Your task to perform on an android device: install app "Google Chrome" Image 0: 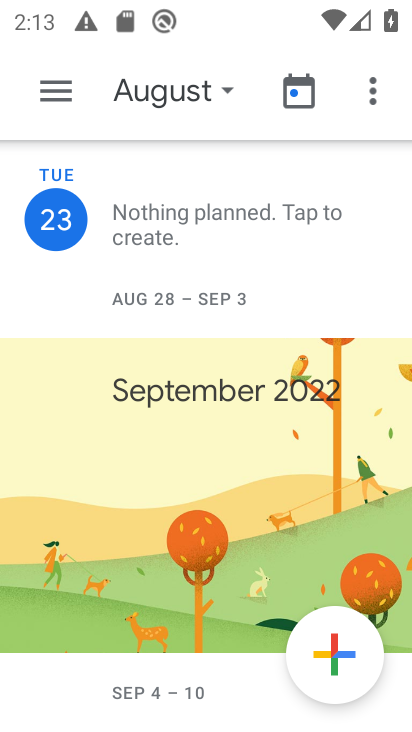
Step 0: press home button
Your task to perform on an android device: install app "Google Chrome" Image 1: 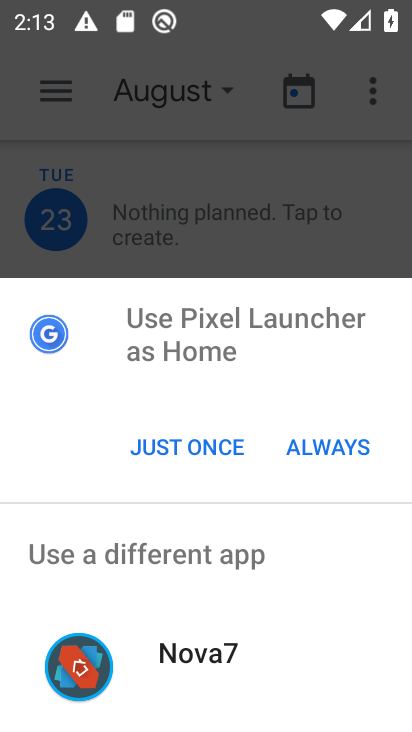
Step 1: click (168, 439)
Your task to perform on an android device: install app "Google Chrome" Image 2: 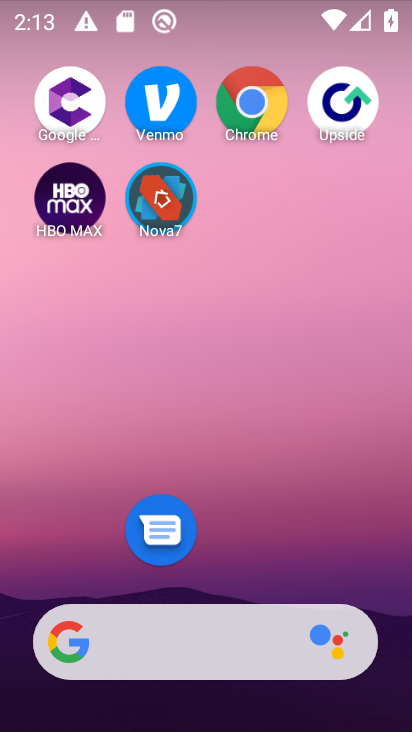
Step 2: drag from (262, 584) to (290, 0)
Your task to perform on an android device: install app "Google Chrome" Image 3: 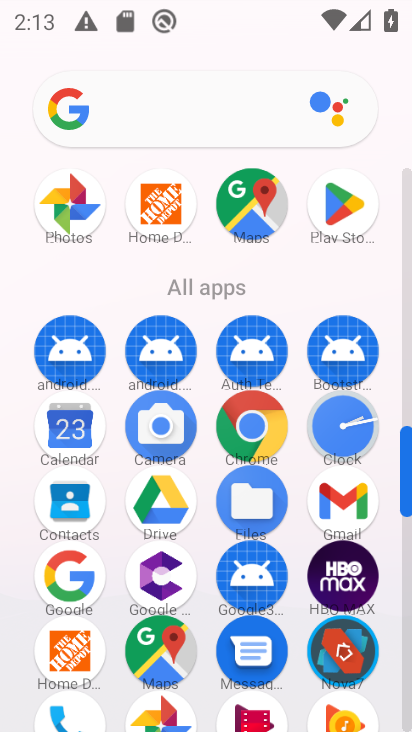
Step 3: click (336, 198)
Your task to perform on an android device: install app "Google Chrome" Image 4: 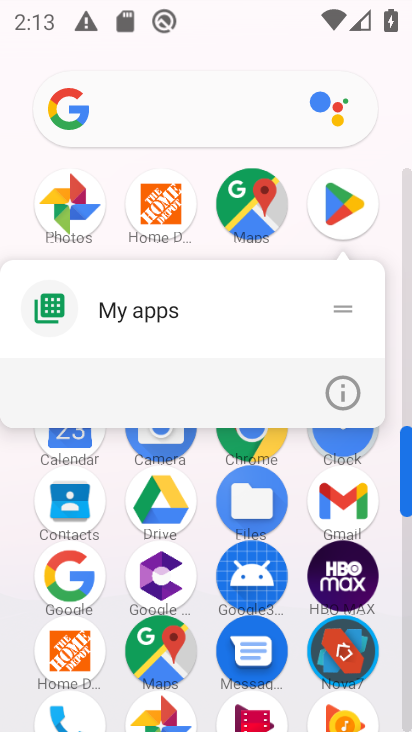
Step 4: click (336, 195)
Your task to perform on an android device: install app "Google Chrome" Image 5: 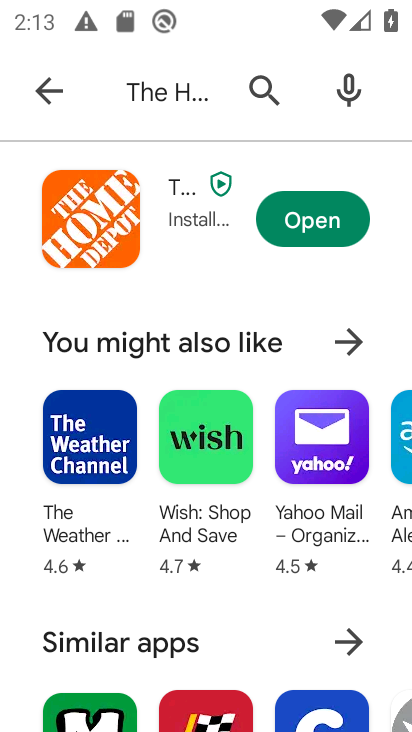
Step 5: press back button
Your task to perform on an android device: install app "Google Chrome" Image 6: 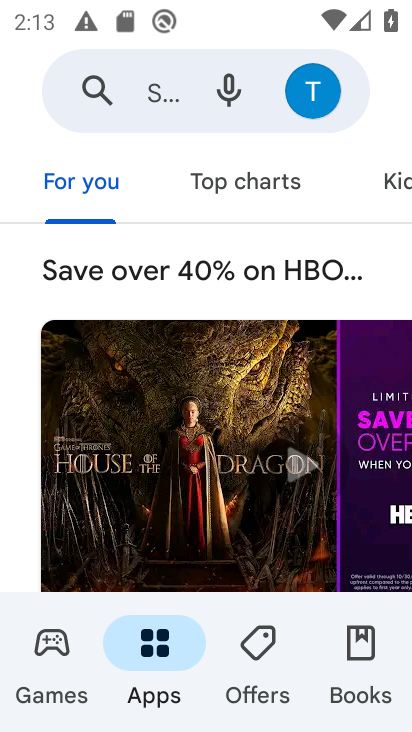
Step 6: click (130, 110)
Your task to perform on an android device: install app "Google Chrome" Image 7: 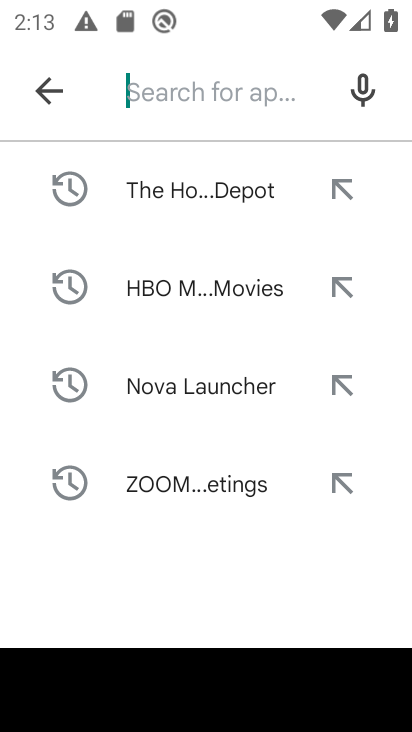
Step 7: type "Google Chrome"
Your task to perform on an android device: install app "Google Chrome" Image 8: 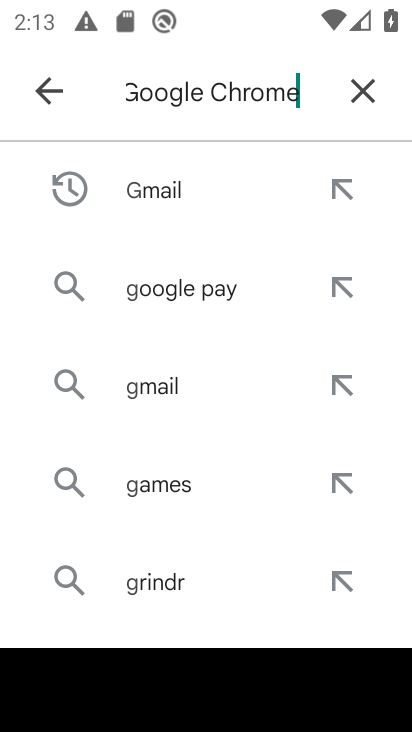
Step 8: press enter
Your task to perform on an android device: install app "Google Chrome" Image 9: 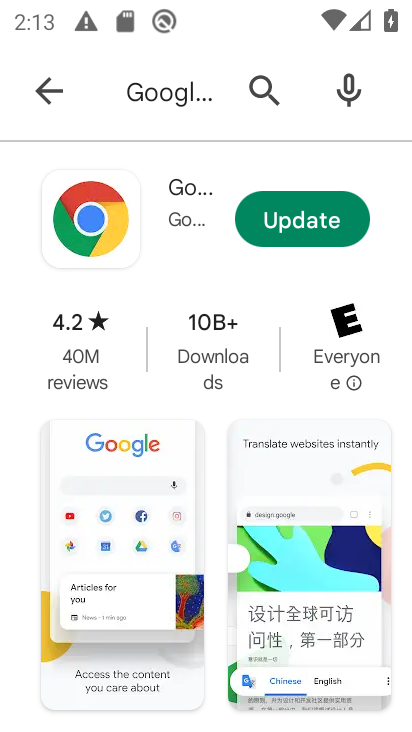
Step 9: click (315, 219)
Your task to perform on an android device: install app "Google Chrome" Image 10: 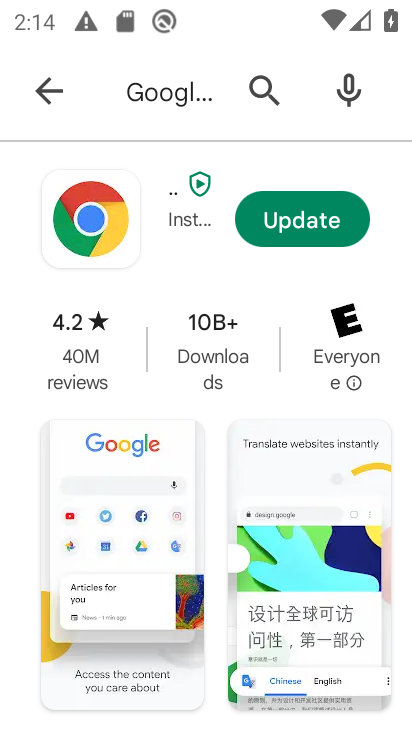
Step 10: click (296, 219)
Your task to perform on an android device: install app "Google Chrome" Image 11: 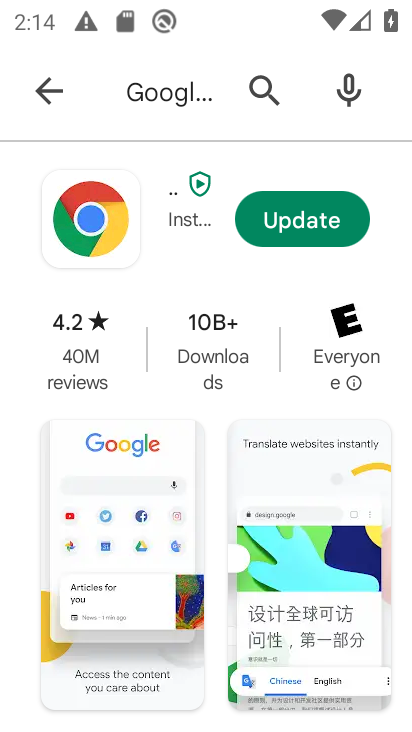
Step 11: click (296, 223)
Your task to perform on an android device: install app "Google Chrome" Image 12: 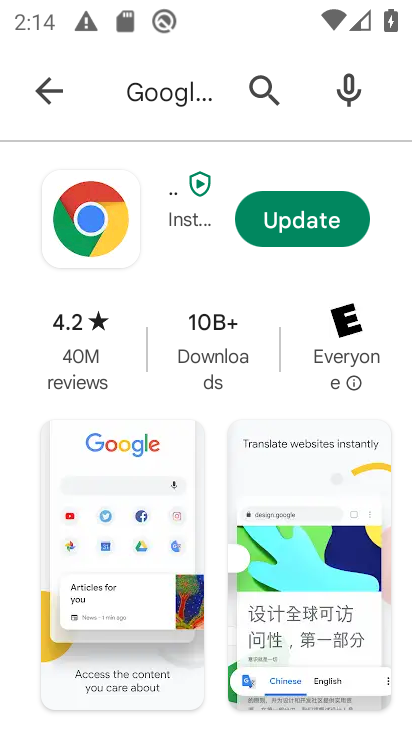
Step 12: click (295, 222)
Your task to perform on an android device: install app "Google Chrome" Image 13: 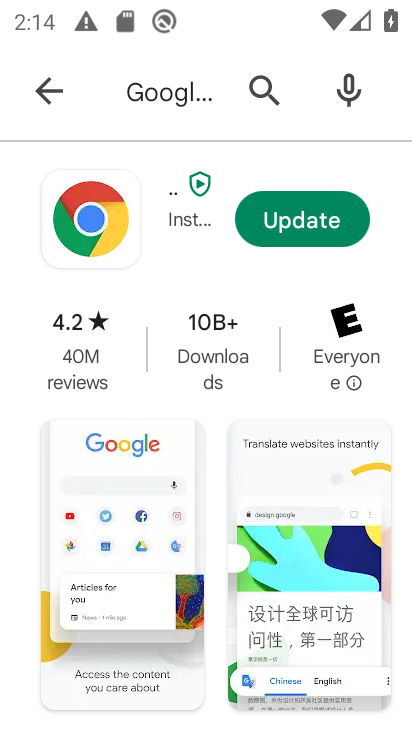
Step 13: click (295, 222)
Your task to perform on an android device: install app "Google Chrome" Image 14: 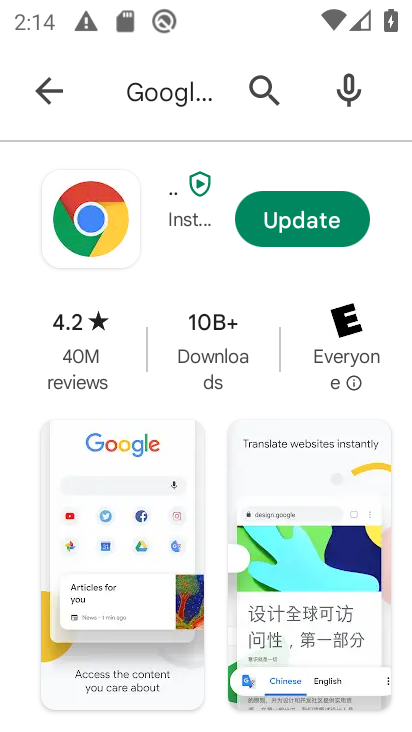
Step 14: task complete